Your task to perform on an android device: Open ESPN.com Image 0: 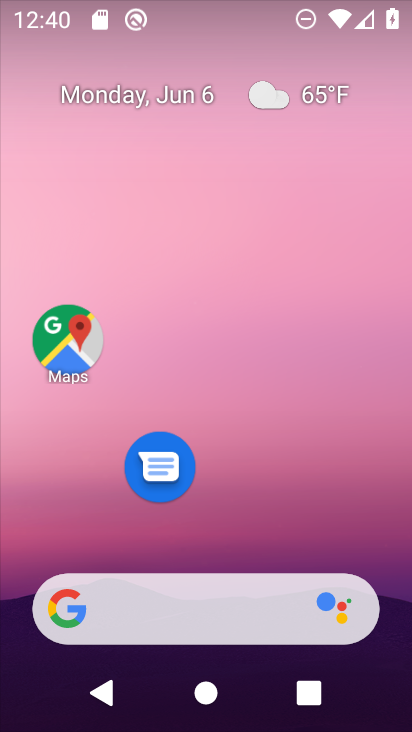
Step 0: press home button
Your task to perform on an android device: Open ESPN.com Image 1: 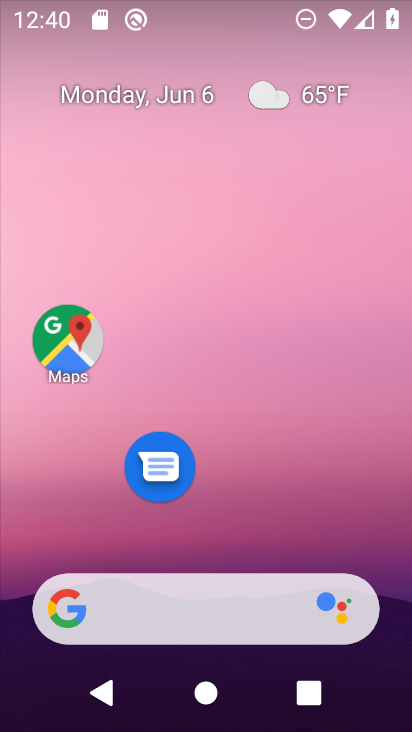
Step 1: drag from (225, 309) to (266, 1)
Your task to perform on an android device: Open ESPN.com Image 2: 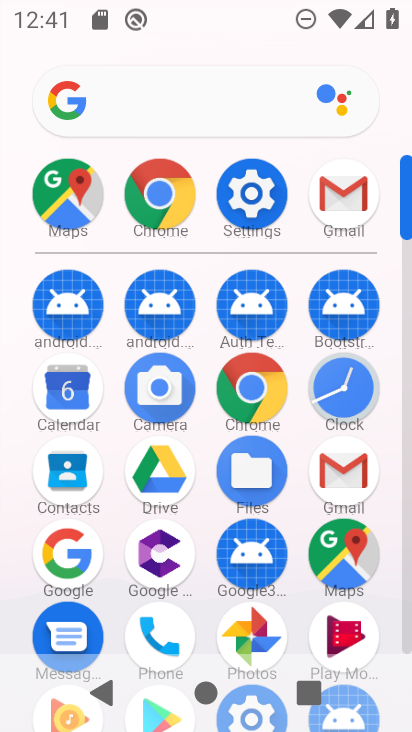
Step 2: drag from (274, 398) to (262, 348)
Your task to perform on an android device: Open ESPN.com Image 3: 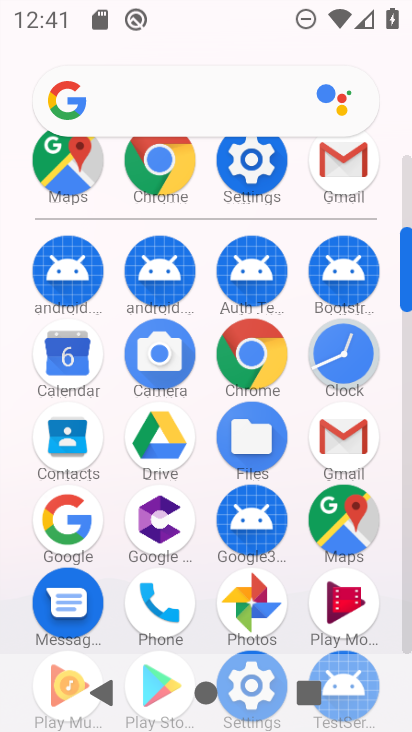
Step 3: click (251, 354)
Your task to perform on an android device: Open ESPN.com Image 4: 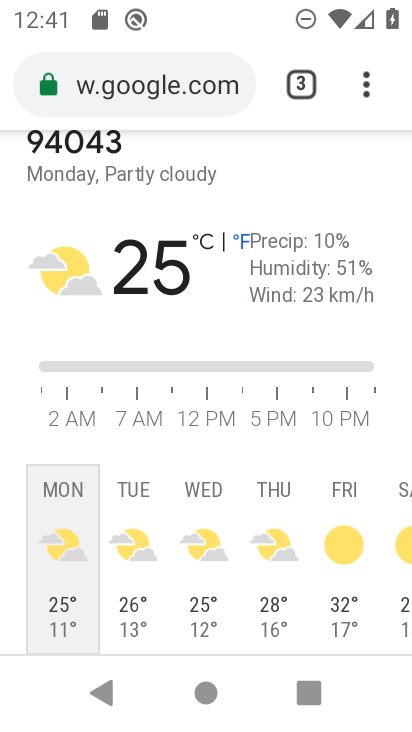
Step 4: click (146, 101)
Your task to perform on an android device: Open ESPN.com Image 5: 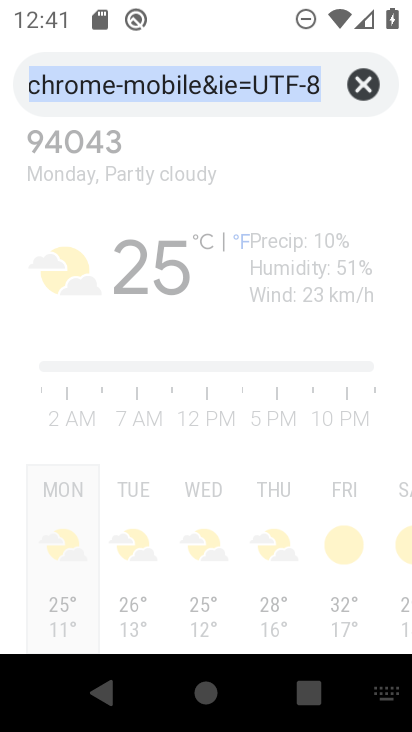
Step 5: click (356, 89)
Your task to perform on an android device: Open ESPN.com Image 6: 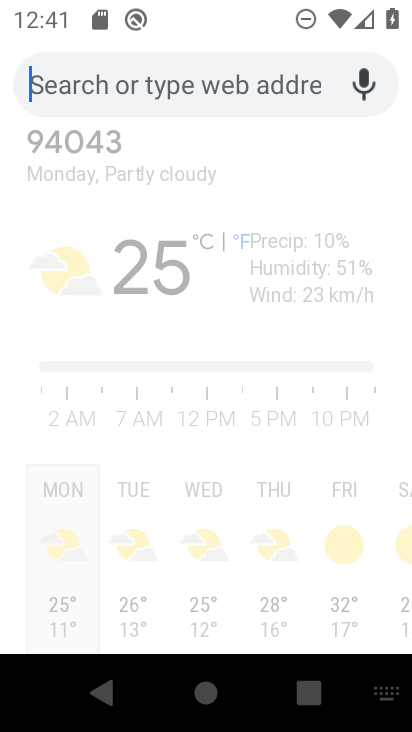
Step 6: type " ESPN.com"
Your task to perform on an android device: Open ESPN.com Image 7: 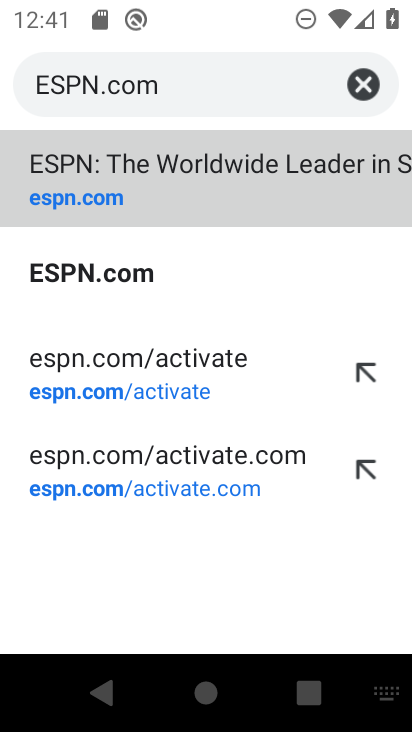
Step 7: click (305, 153)
Your task to perform on an android device: Open ESPN.com Image 8: 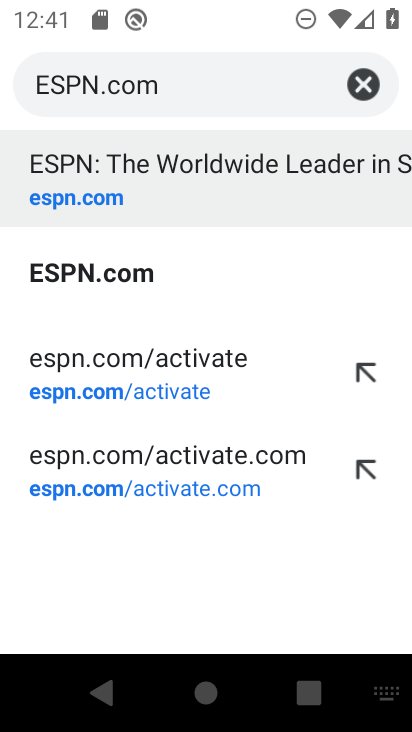
Step 8: click (305, 153)
Your task to perform on an android device: Open ESPN.com Image 9: 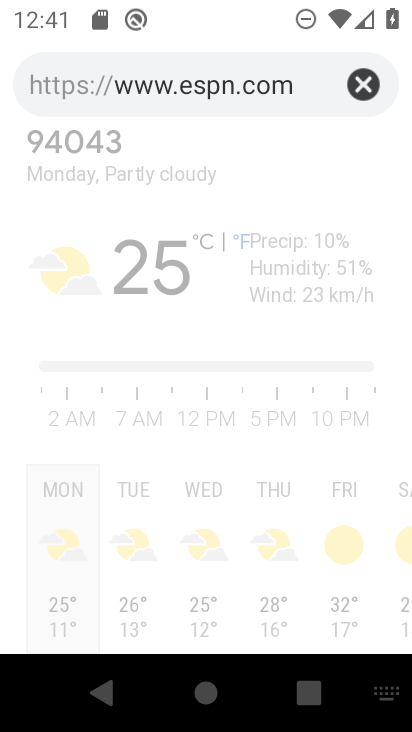
Step 9: click (305, 153)
Your task to perform on an android device: Open ESPN.com Image 10: 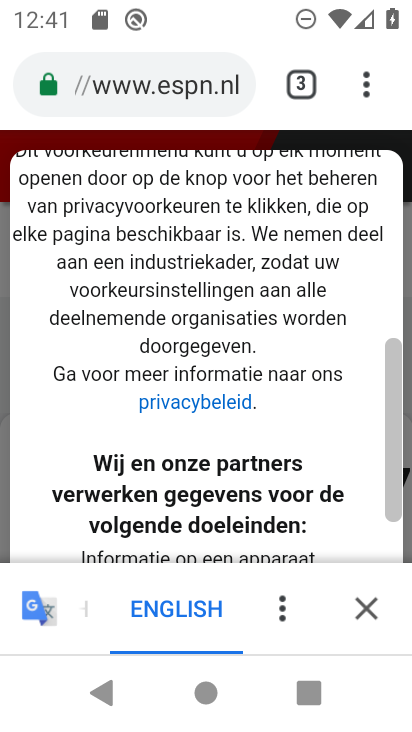
Step 10: task complete